Your task to perform on an android device: all mails in gmail Image 0: 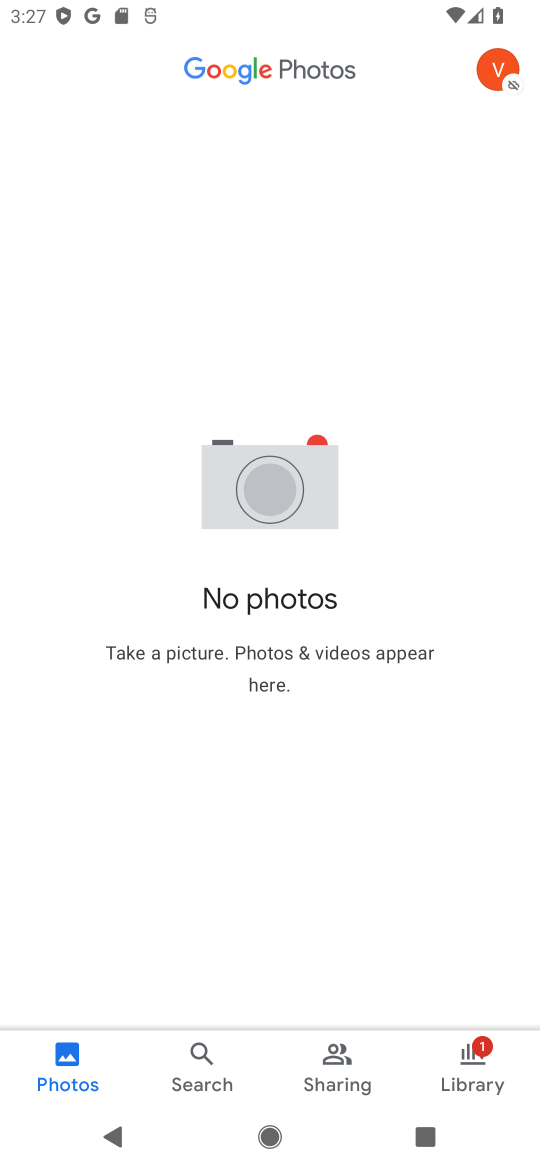
Step 0: press back button
Your task to perform on an android device: all mails in gmail Image 1: 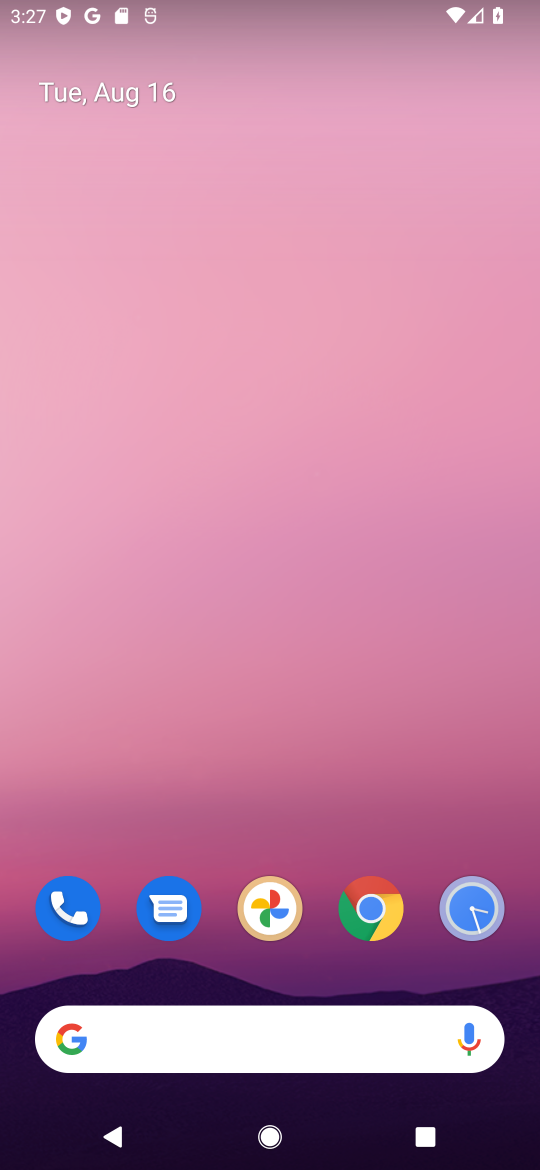
Step 1: drag from (206, 917) to (303, 80)
Your task to perform on an android device: all mails in gmail Image 2: 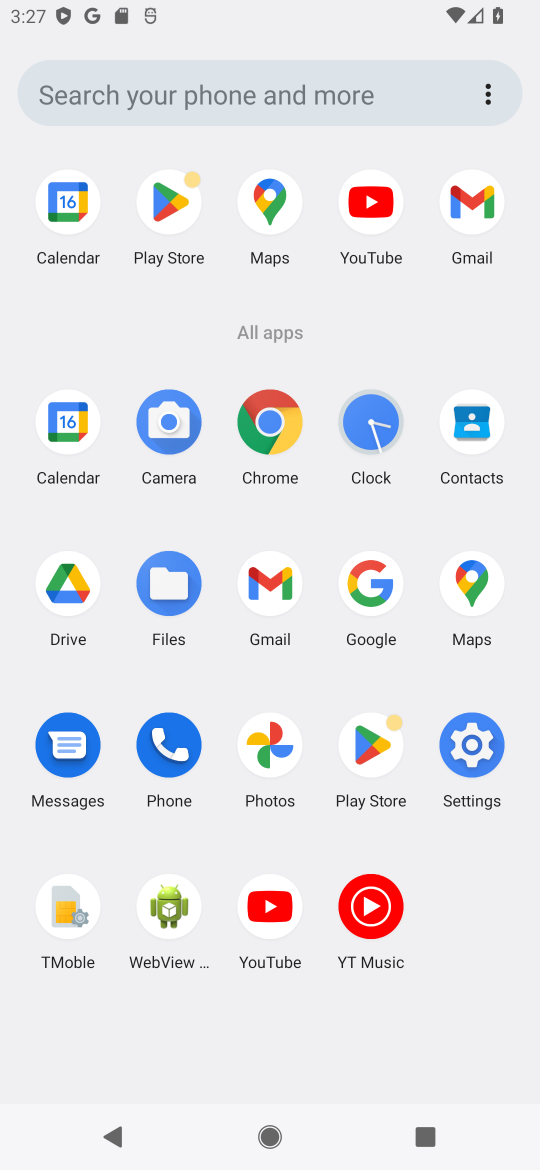
Step 2: click (475, 210)
Your task to perform on an android device: all mails in gmail Image 3: 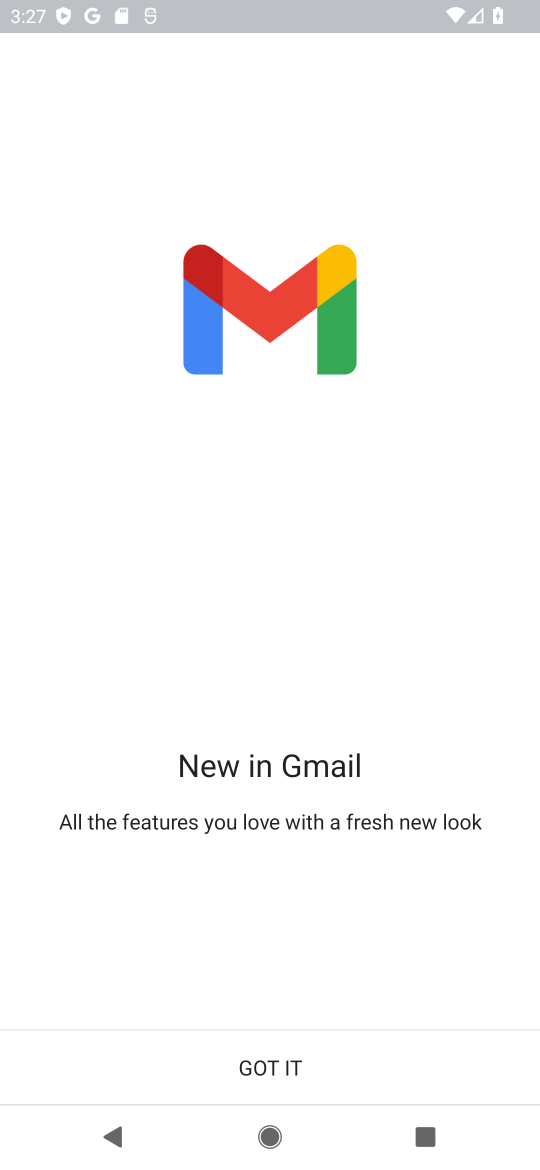
Step 3: click (242, 1066)
Your task to perform on an android device: all mails in gmail Image 4: 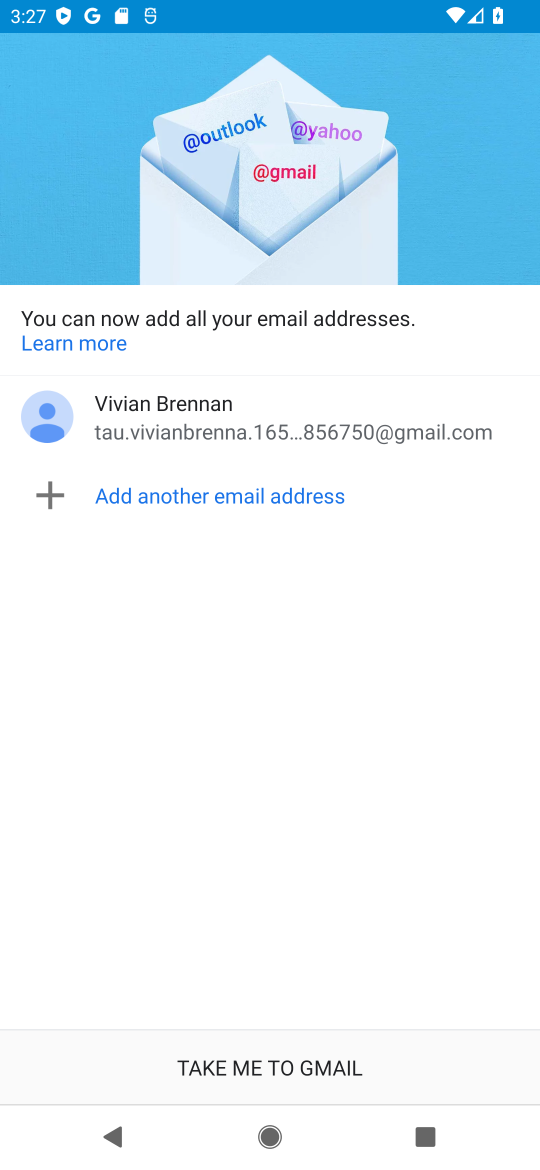
Step 4: click (243, 1064)
Your task to perform on an android device: all mails in gmail Image 5: 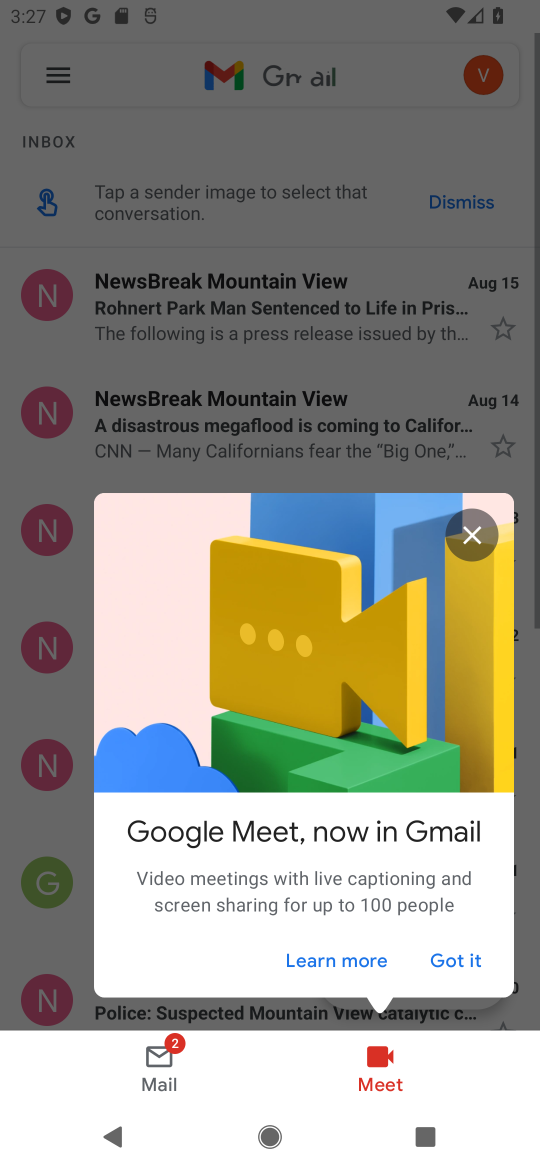
Step 5: click (468, 963)
Your task to perform on an android device: all mails in gmail Image 6: 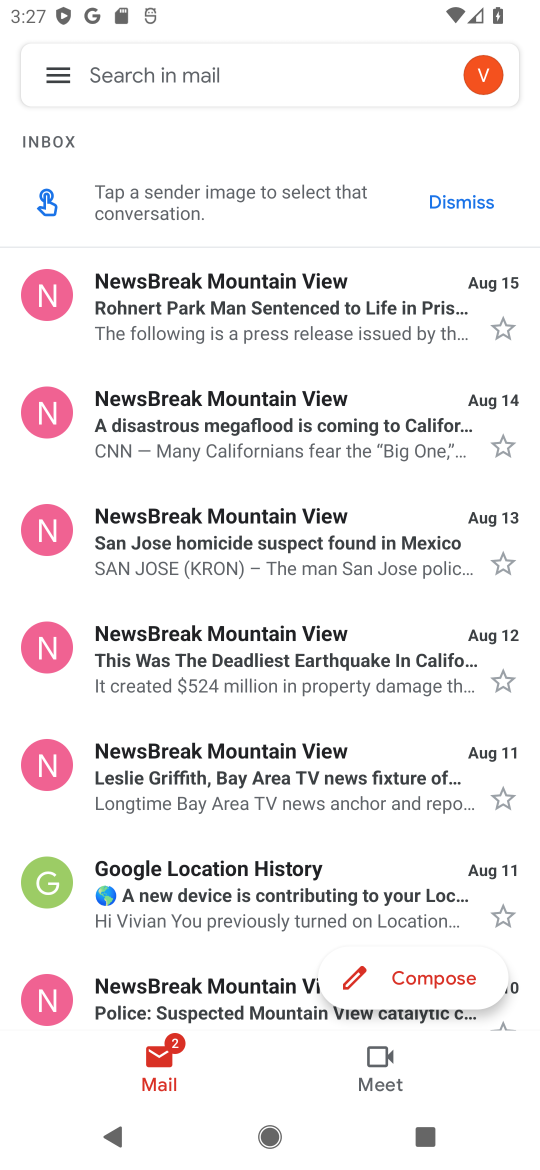
Step 6: click (61, 73)
Your task to perform on an android device: all mails in gmail Image 7: 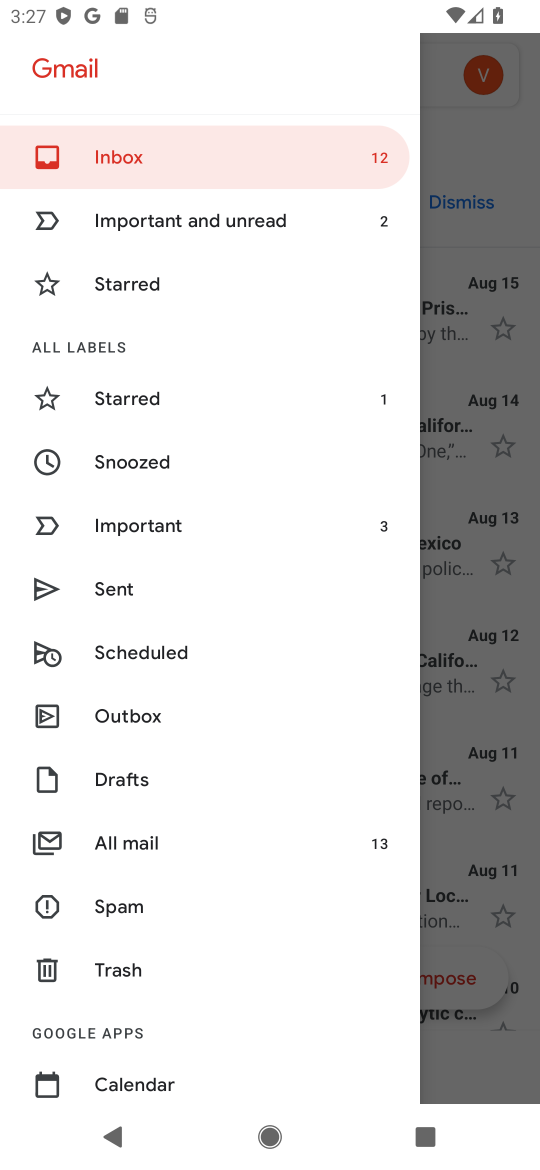
Step 7: click (168, 840)
Your task to perform on an android device: all mails in gmail Image 8: 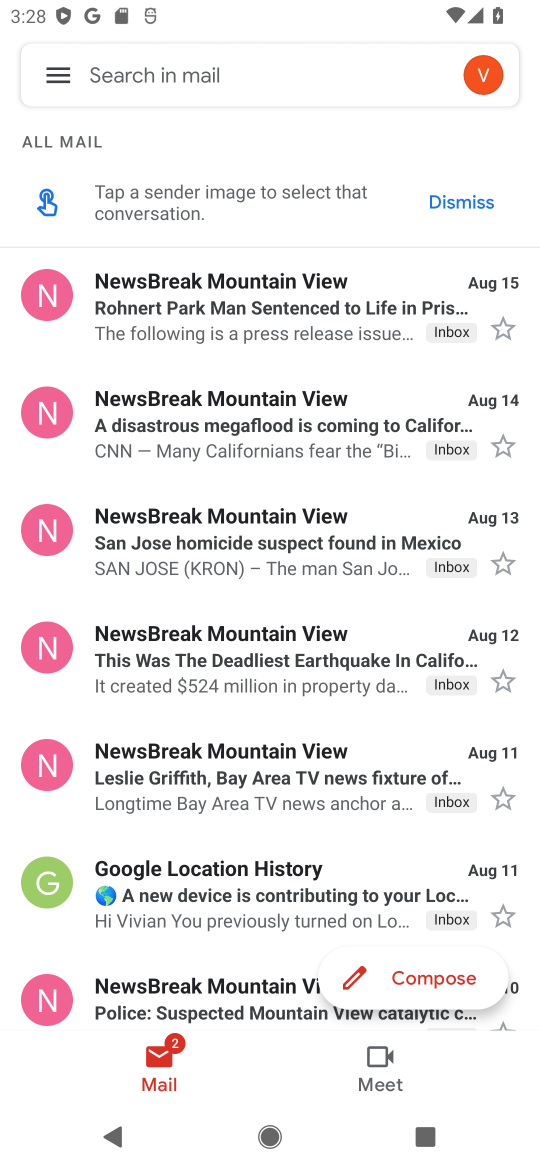
Step 8: task complete